Your task to perform on an android device: remove spam from my inbox in the gmail app Image 0: 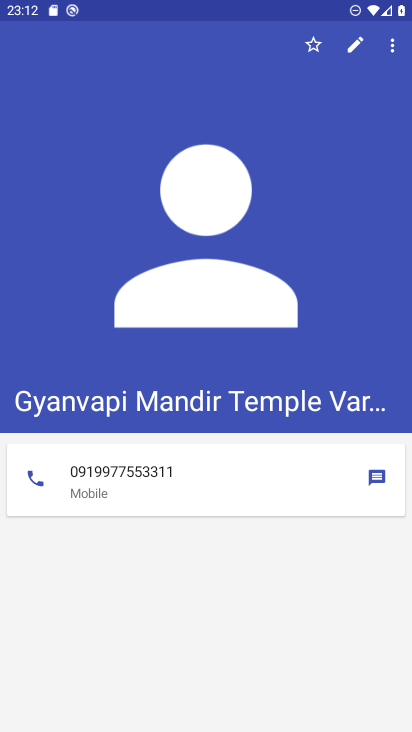
Step 0: press home button
Your task to perform on an android device: remove spam from my inbox in the gmail app Image 1: 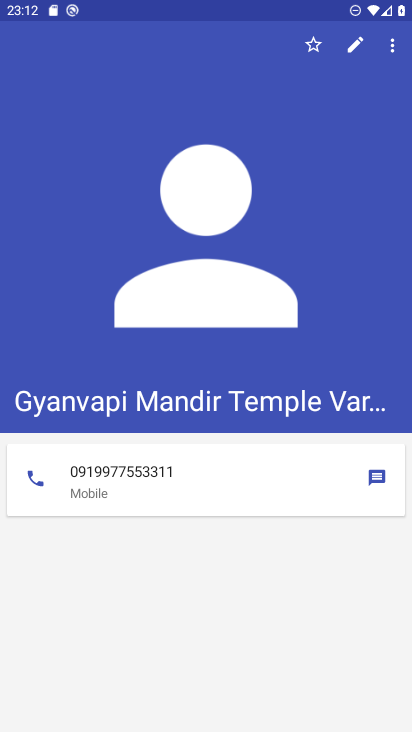
Step 1: press home button
Your task to perform on an android device: remove spam from my inbox in the gmail app Image 2: 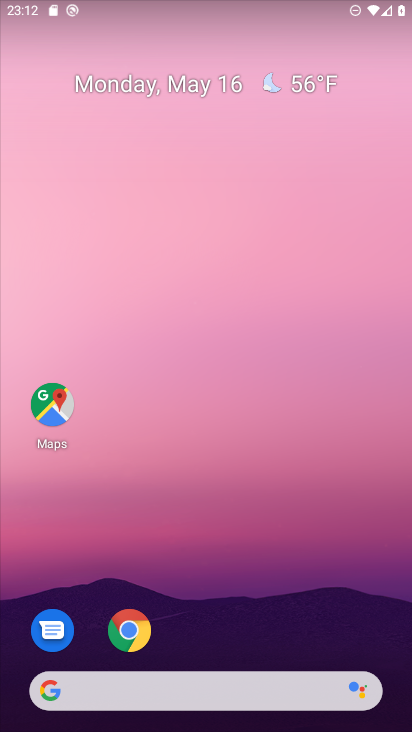
Step 2: drag from (261, 558) to (254, 50)
Your task to perform on an android device: remove spam from my inbox in the gmail app Image 3: 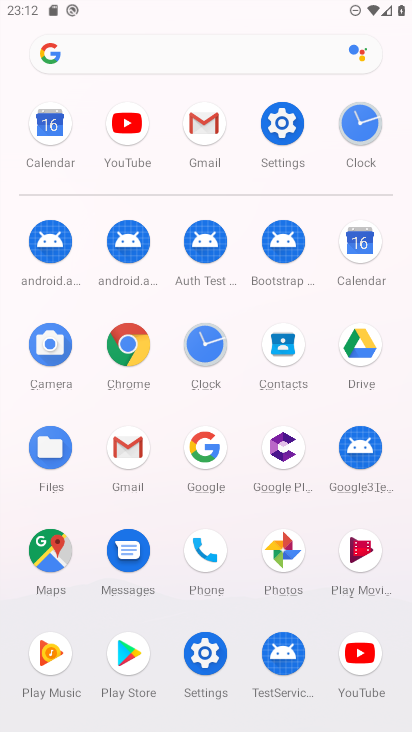
Step 3: click (201, 119)
Your task to perform on an android device: remove spam from my inbox in the gmail app Image 4: 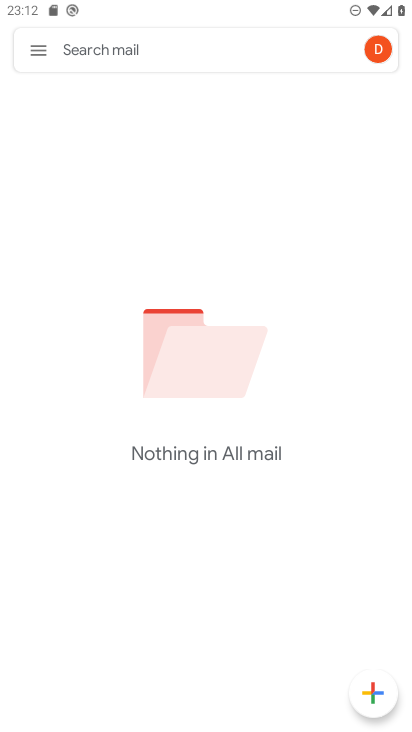
Step 4: click (40, 41)
Your task to perform on an android device: remove spam from my inbox in the gmail app Image 5: 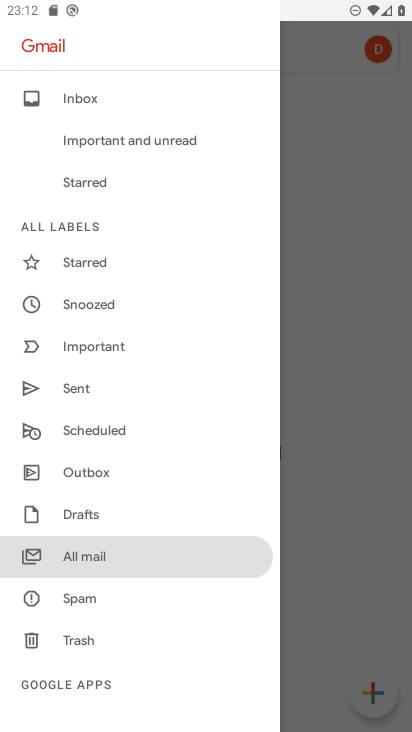
Step 5: click (80, 588)
Your task to perform on an android device: remove spam from my inbox in the gmail app Image 6: 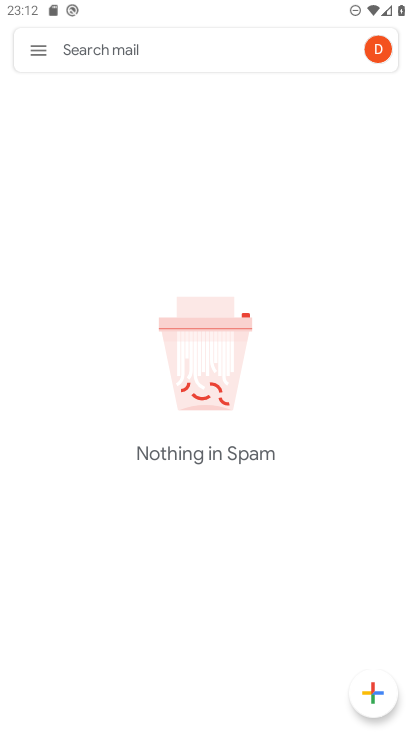
Step 6: task complete